Your task to perform on an android device: set default search engine in the chrome app Image 0: 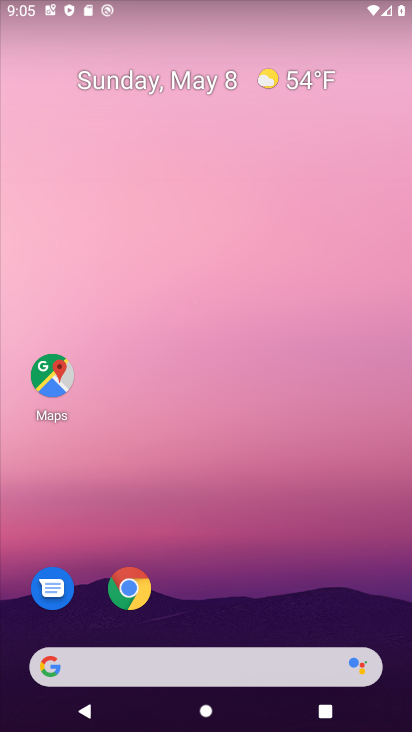
Step 0: click (134, 581)
Your task to perform on an android device: set default search engine in the chrome app Image 1: 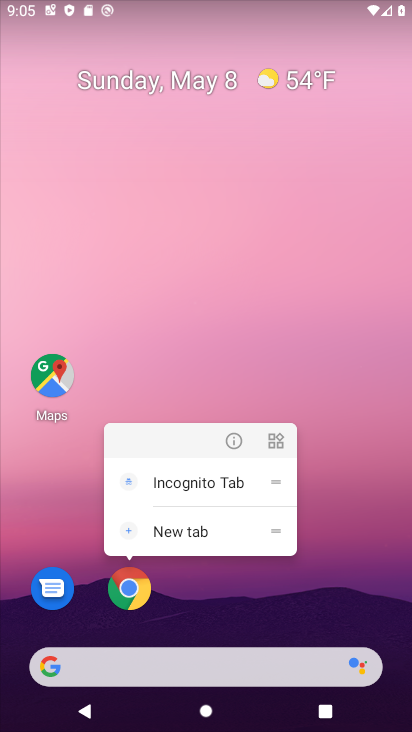
Step 1: click (233, 441)
Your task to perform on an android device: set default search engine in the chrome app Image 2: 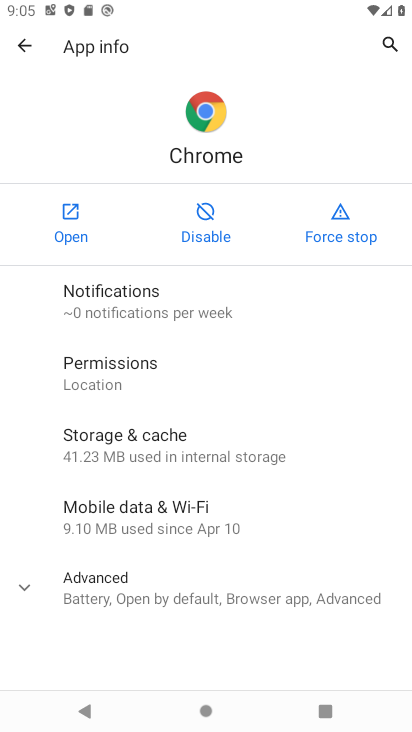
Step 2: click (60, 218)
Your task to perform on an android device: set default search engine in the chrome app Image 3: 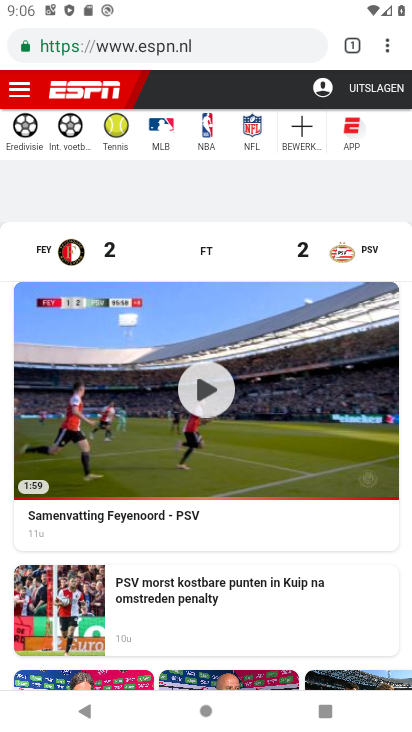
Step 3: click (389, 43)
Your task to perform on an android device: set default search engine in the chrome app Image 4: 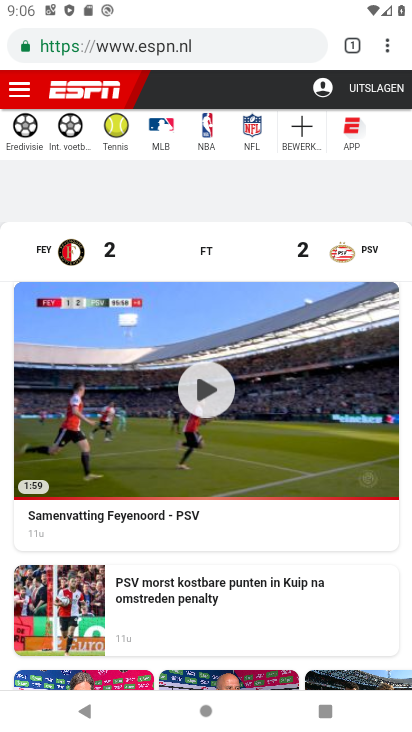
Step 4: click (382, 46)
Your task to perform on an android device: set default search engine in the chrome app Image 5: 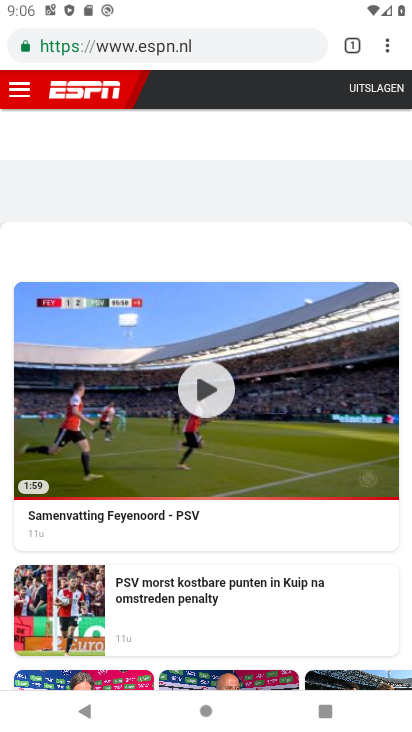
Step 5: click (393, 40)
Your task to perform on an android device: set default search engine in the chrome app Image 6: 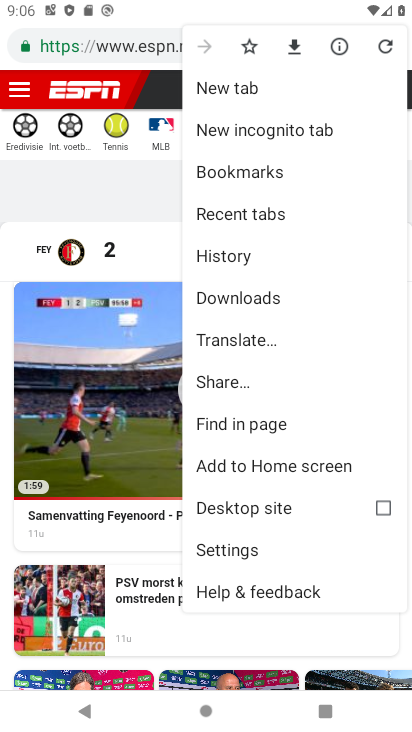
Step 6: click (279, 543)
Your task to perform on an android device: set default search engine in the chrome app Image 7: 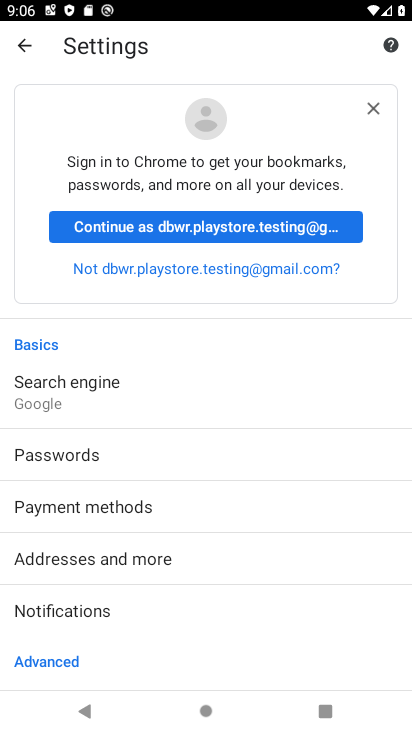
Step 7: click (40, 383)
Your task to perform on an android device: set default search engine in the chrome app Image 8: 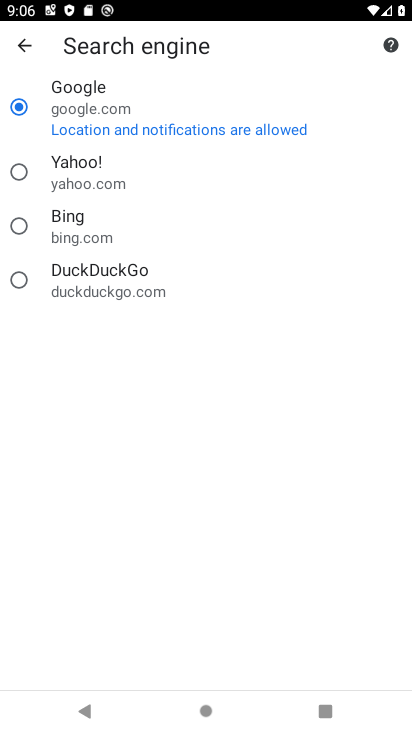
Step 8: task complete